Your task to perform on an android device: allow notifications from all sites in the chrome app Image 0: 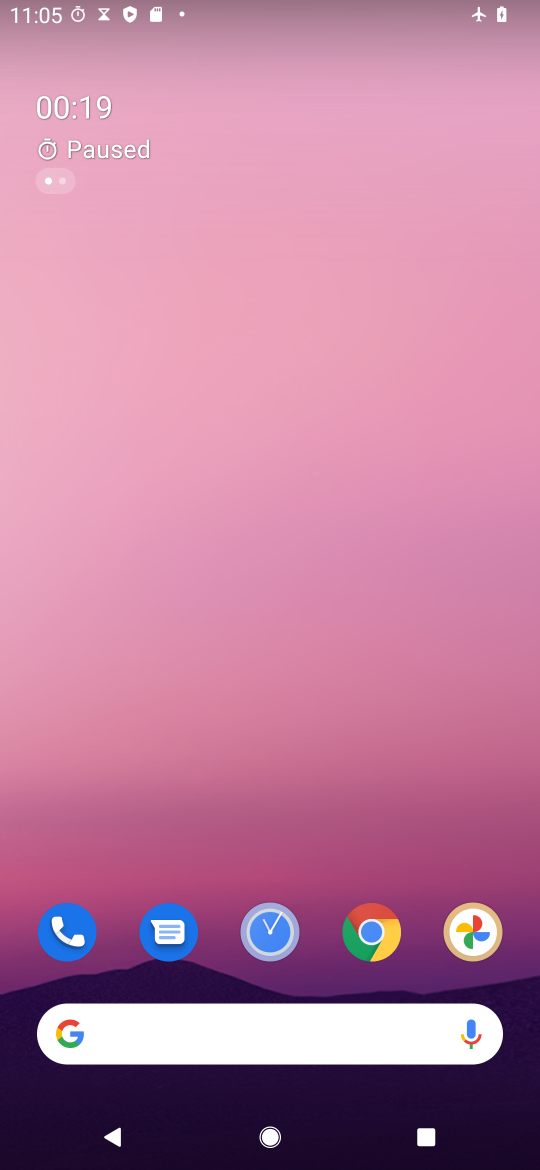
Step 0: click (376, 931)
Your task to perform on an android device: allow notifications from all sites in the chrome app Image 1: 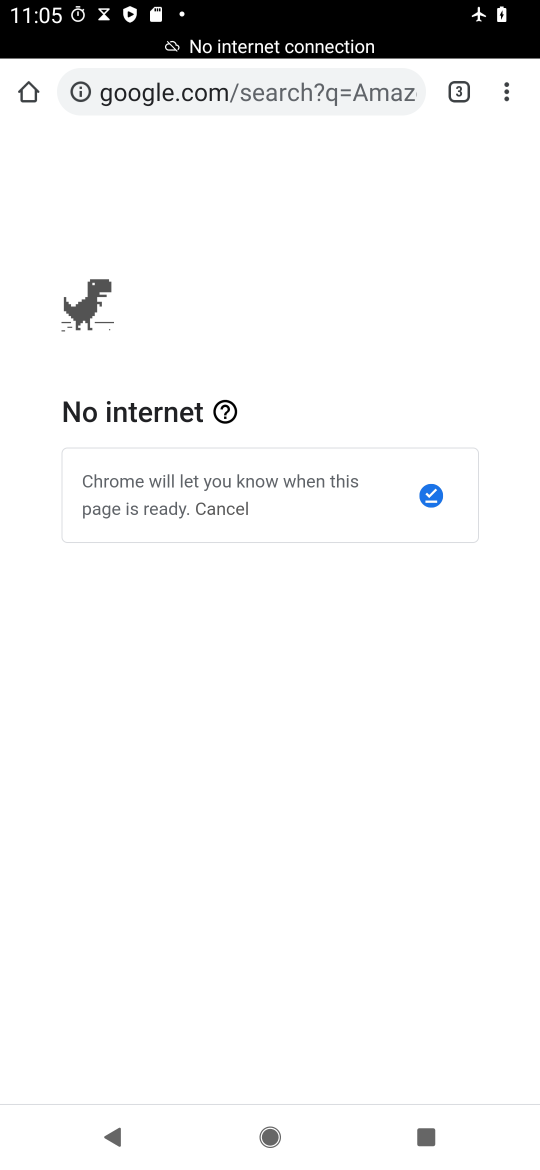
Step 1: click (507, 95)
Your task to perform on an android device: allow notifications from all sites in the chrome app Image 2: 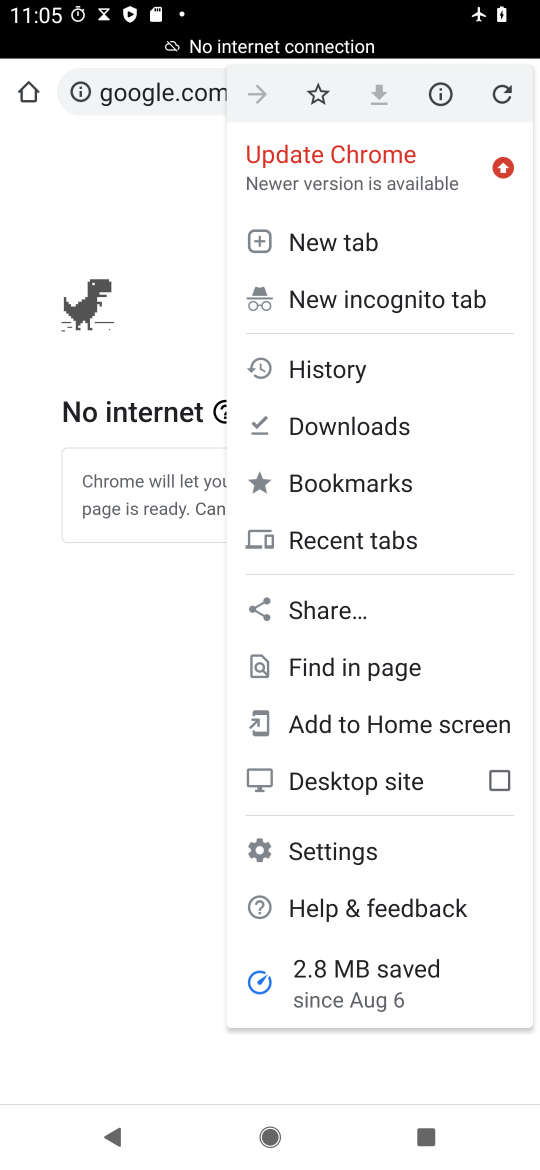
Step 2: click (363, 855)
Your task to perform on an android device: allow notifications from all sites in the chrome app Image 3: 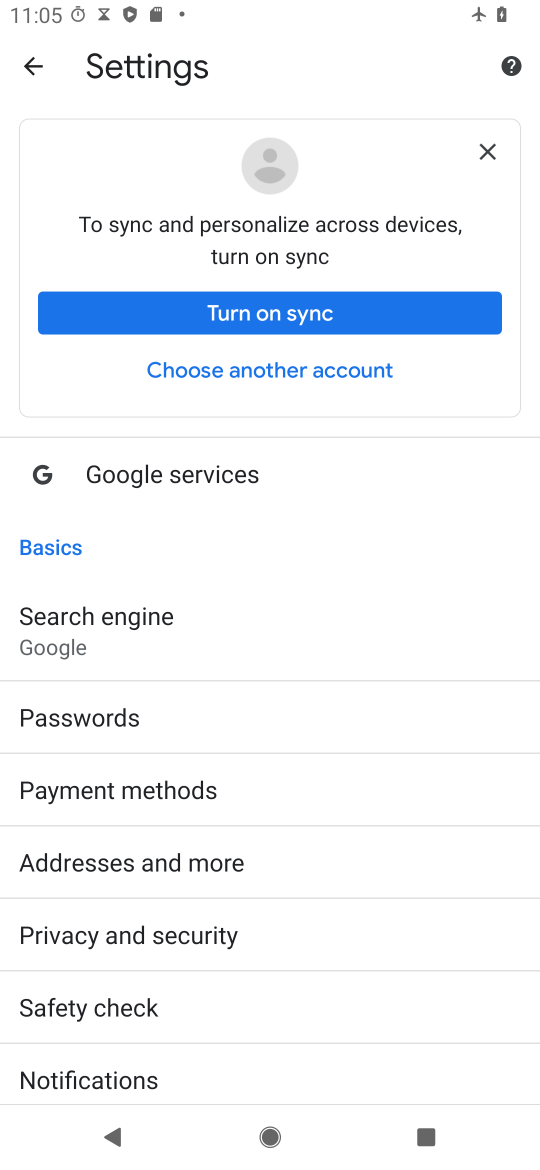
Step 3: click (143, 1082)
Your task to perform on an android device: allow notifications from all sites in the chrome app Image 4: 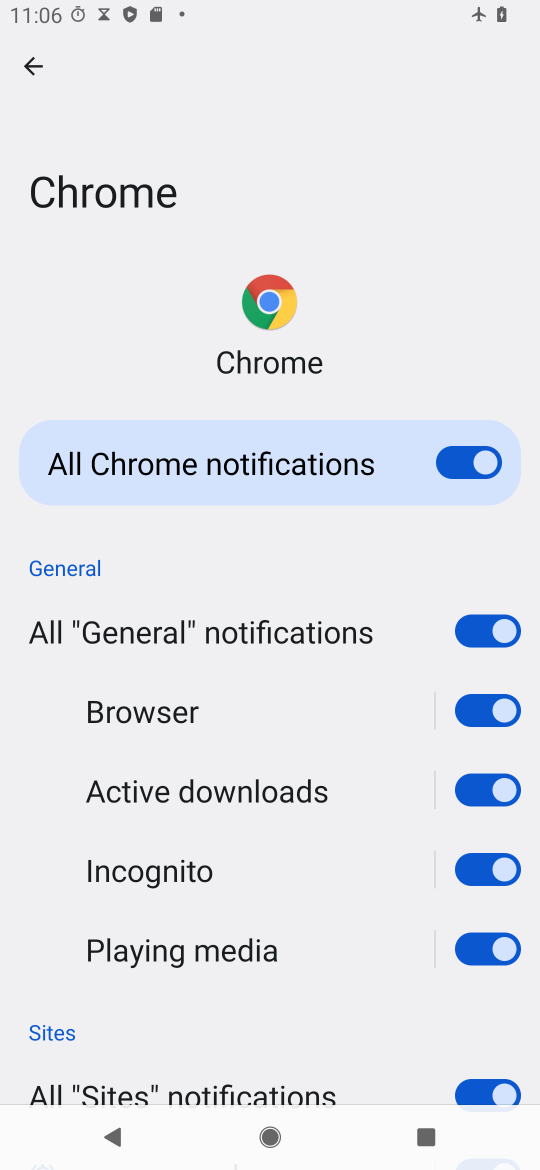
Step 4: task complete